Your task to perform on an android device: Open settings on Google Maps Image 0: 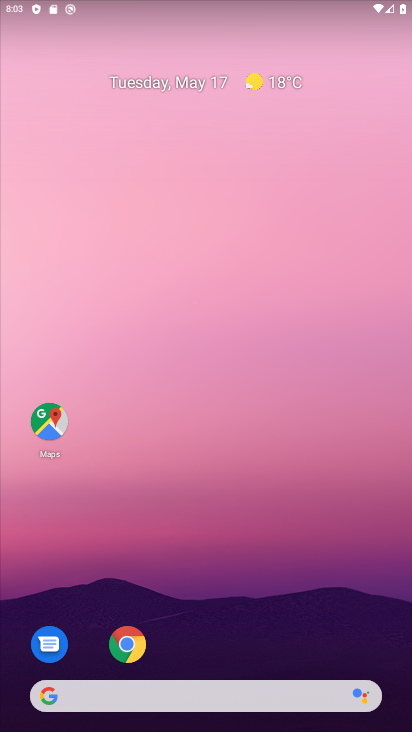
Step 0: click (39, 423)
Your task to perform on an android device: Open settings on Google Maps Image 1: 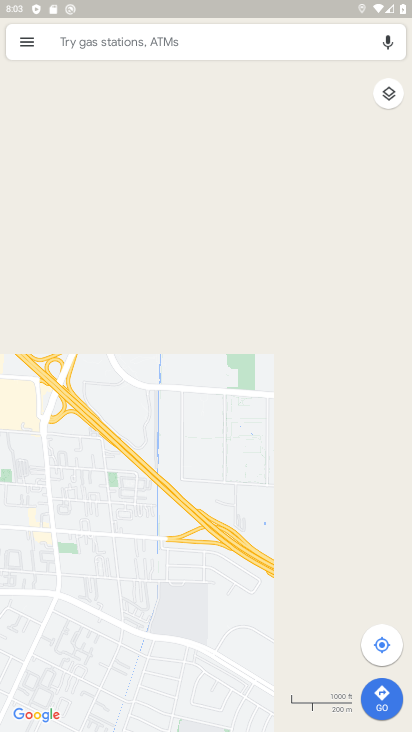
Step 1: click (25, 42)
Your task to perform on an android device: Open settings on Google Maps Image 2: 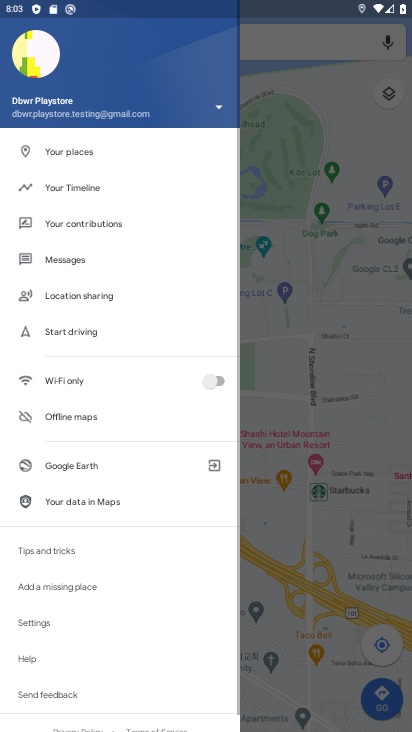
Step 2: click (45, 627)
Your task to perform on an android device: Open settings on Google Maps Image 3: 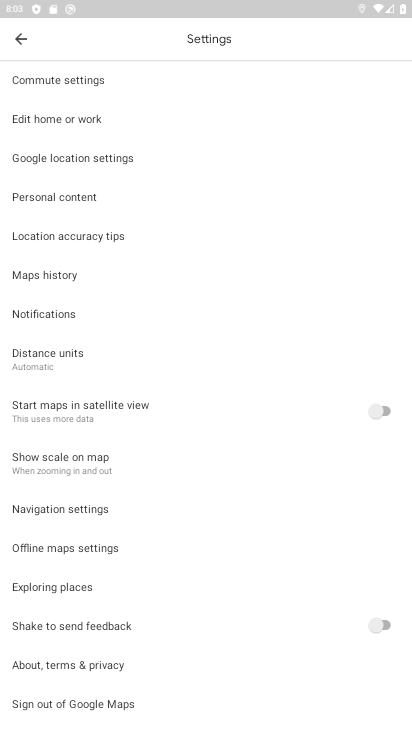
Step 3: task complete